Your task to perform on an android device: toggle translation in the chrome app Image 0: 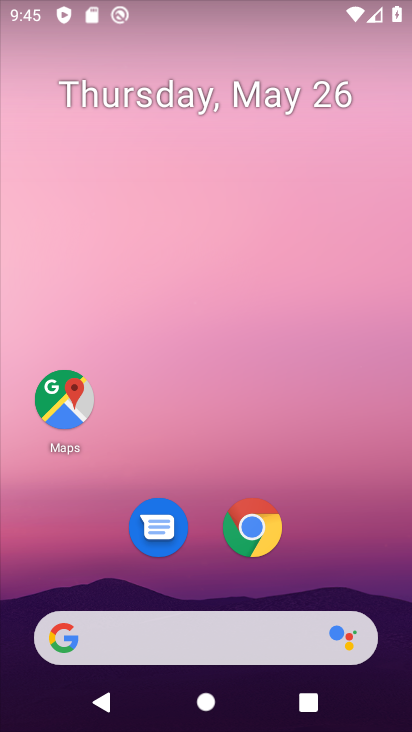
Step 0: click (264, 551)
Your task to perform on an android device: toggle translation in the chrome app Image 1: 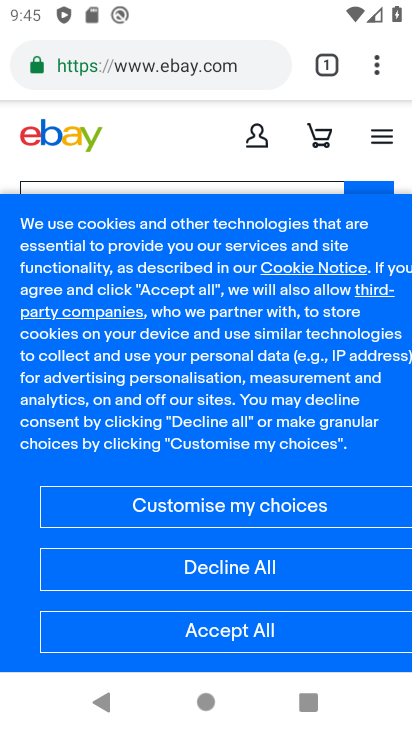
Step 1: click (374, 69)
Your task to perform on an android device: toggle translation in the chrome app Image 2: 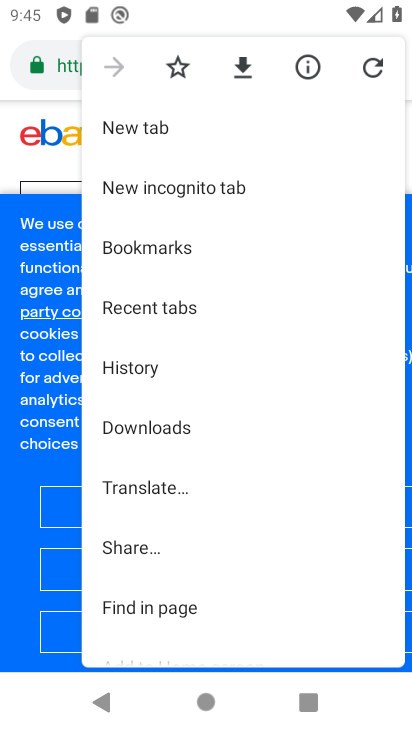
Step 2: drag from (173, 627) to (207, 281)
Your task to perform on an android device: toggle translation in the chrome app Image 3: 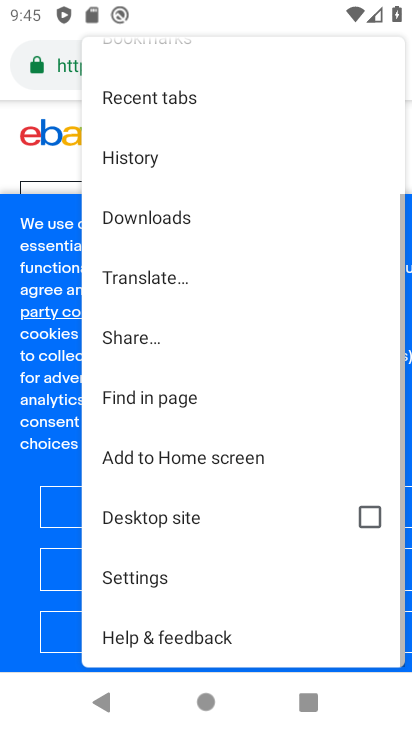
Step 3: click (142, 579)
Your task to perform on an android device: toggle translation in the chrome app Image 4: 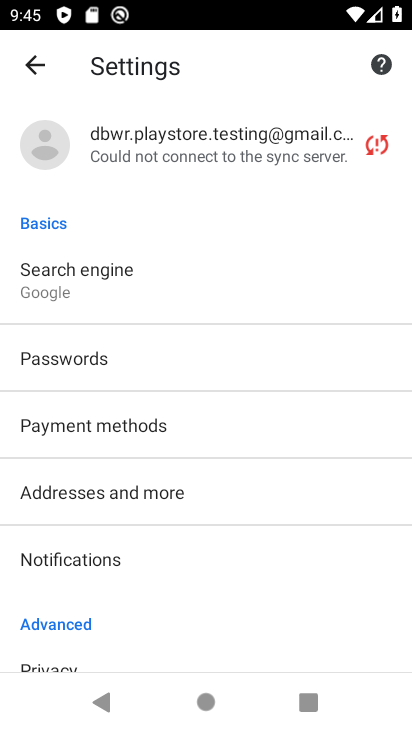
Step 4: drag from (176, 595) to (210, 223)
Your task to perform on an android device: toggle translation in the chrome app Image 5: 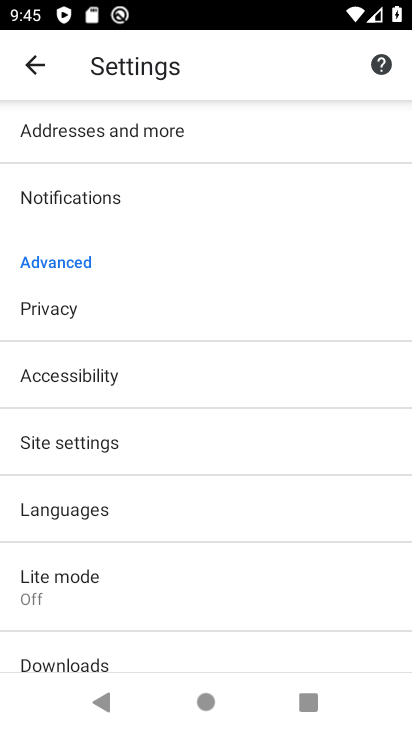
Step 5: click (97, 512)
Your task to perform on an android device: toggle translation in the chrome app Image 6: 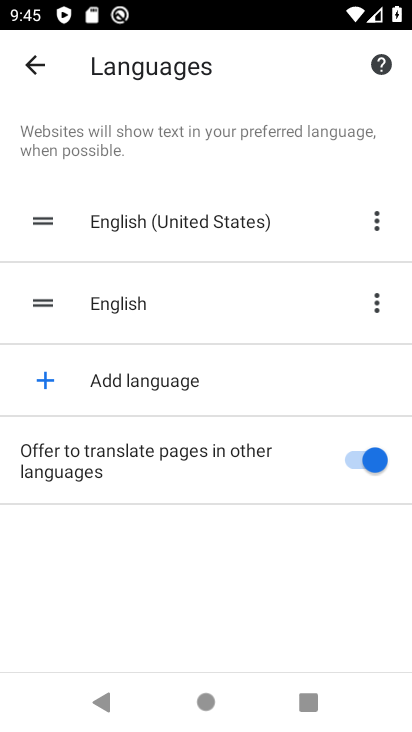
Step 6: click (383, 463)
Your task to perform on an android device: toggle translation in the chrome app Image 7: 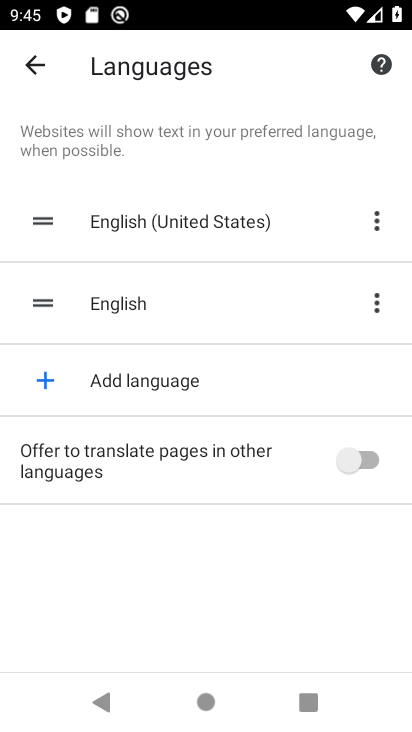
Step 7: task complete